Your task to perform on an android device: check data usage Image 0: 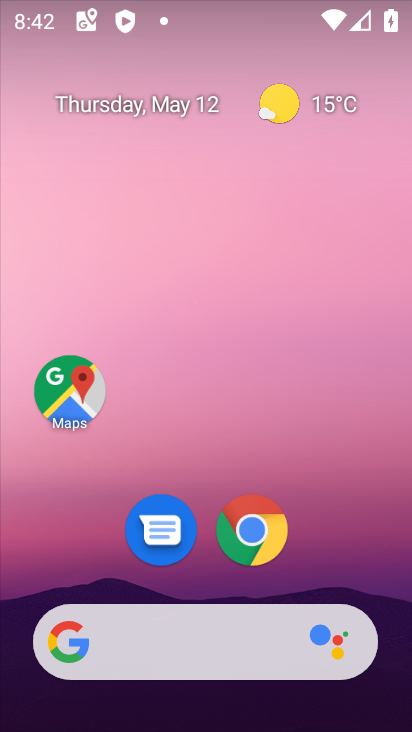
Step 0: drag from (143, 640) to (236, 21)
Your task to perform on an android device: check data usage Image 1: 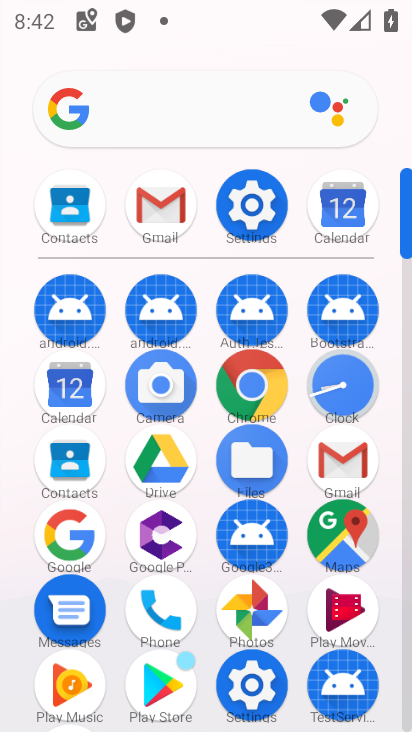
Step 1: click (248, 215)
Your task to perform on an android device: check data usage Image 2: 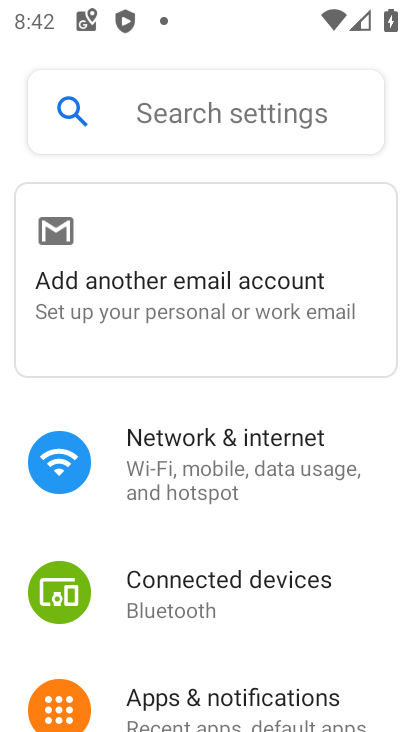
Step 2: click (212, 447)
Your task to perform on an android device: check data usage Image 3: 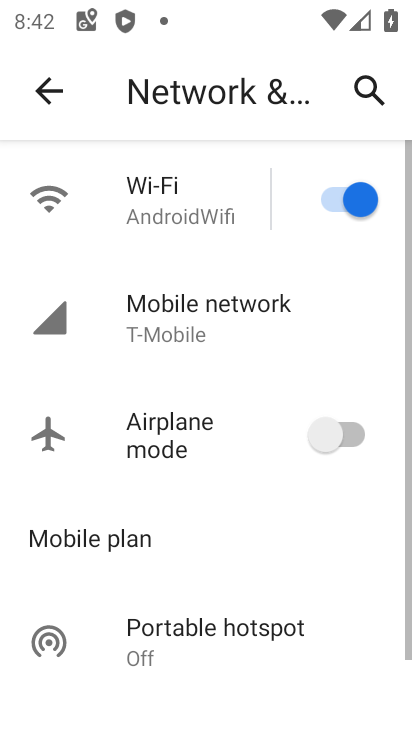
Step 3: click (187, 317)
Your task to perform on an android device: check data usage Image 4: 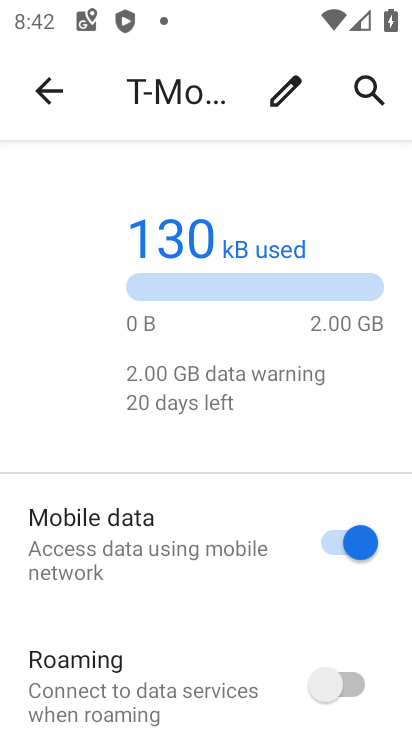
Step 4: task complete